Your task to perform on an android device: Open network settings Image 0: 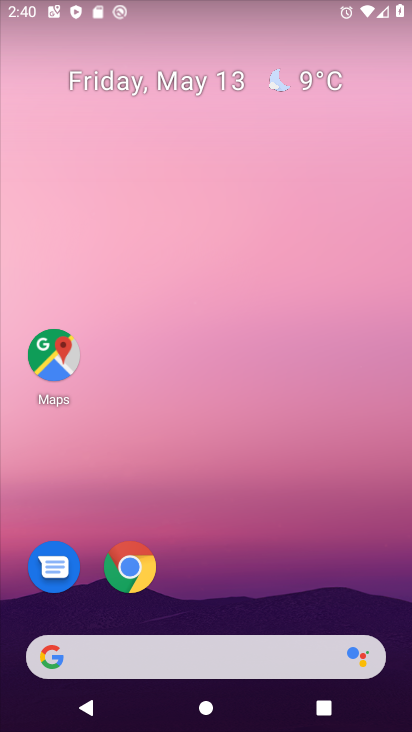
Step 0: drag from (214, 598) to (318, 121)
Your task to perform on an android device: Open network settings Image 1: 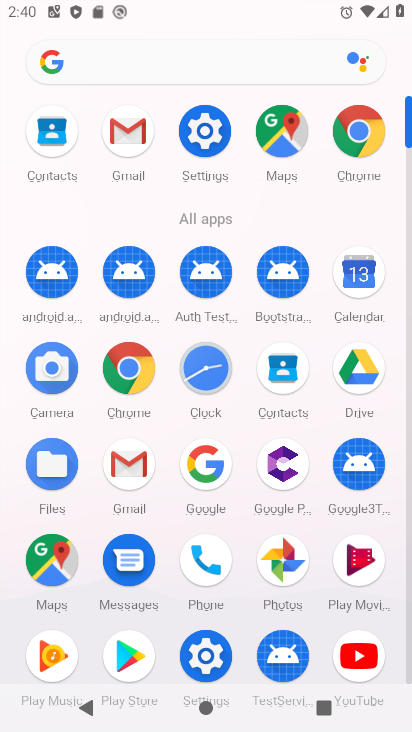
Step 1: click (219, 669)
Your task to perform on an android device: Open network settings Image 2: 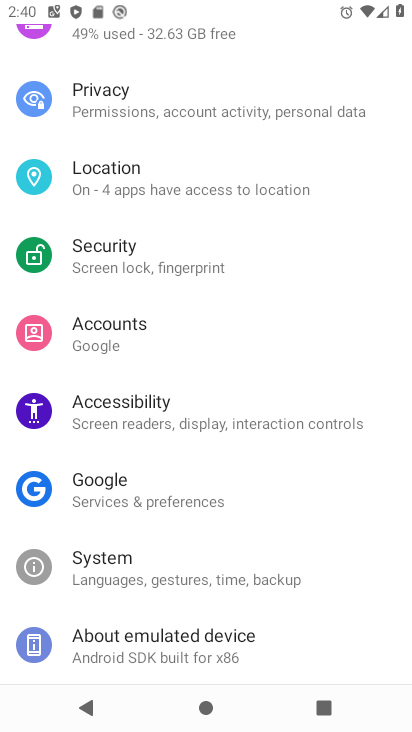
Step 2: drag from (174, 175) to (173, 663)
Your task to perform on an android device: Open network settings Image 3: 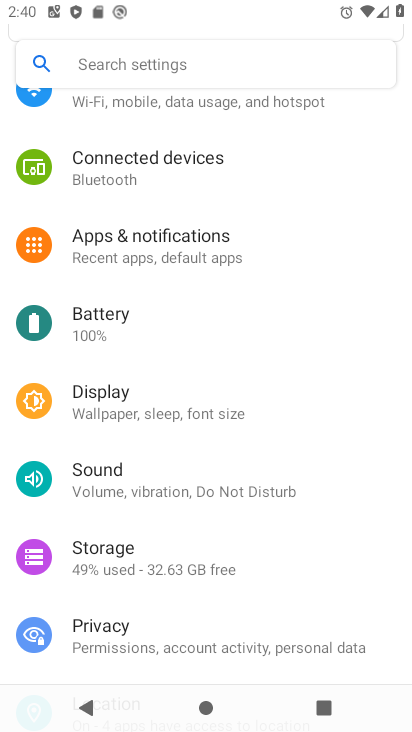
Step 3: drag from (197, 224) to (197, 707)
Your task to perform on an android device: Open network settings Image 4: 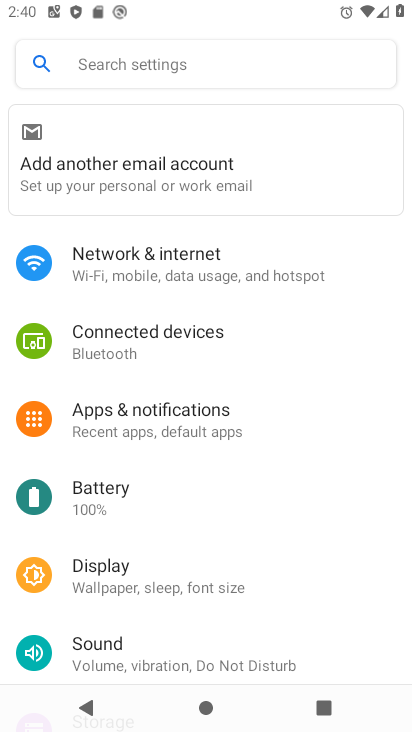
Step 4: click (168, 246)
Your task to perform on an android device: Open network settings Image 5: 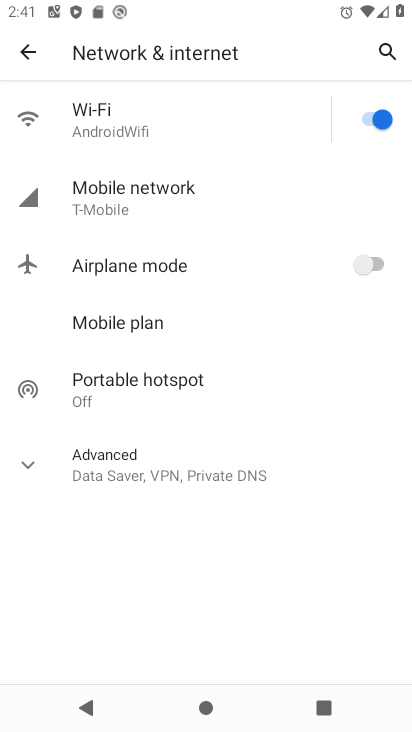
Step 5: task complete